Your task to perform on an android device: Open calendar and show me the second week of next month Image 0: 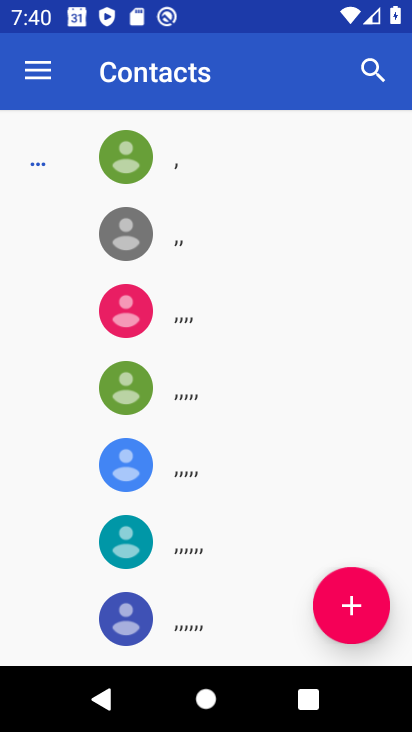
Step 0: press home button
Your task to perform on an android device: Open calendar and show me the second week of next month Image 1: 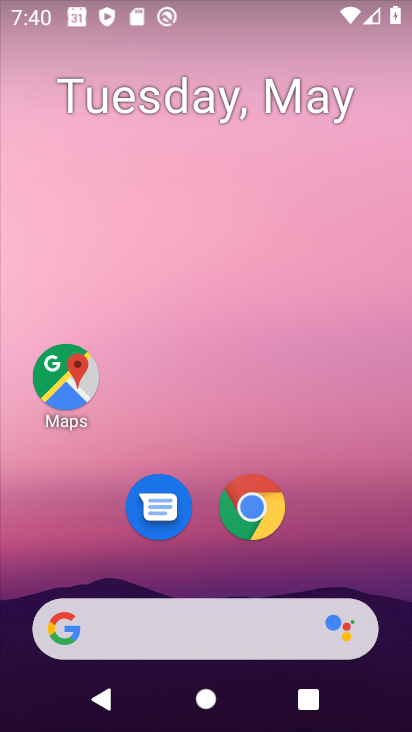
Step 1: drag from (222, 576) to (247, 51)
Your task to perform on an android device: Open calendar and show me the second week of next month Image 2: 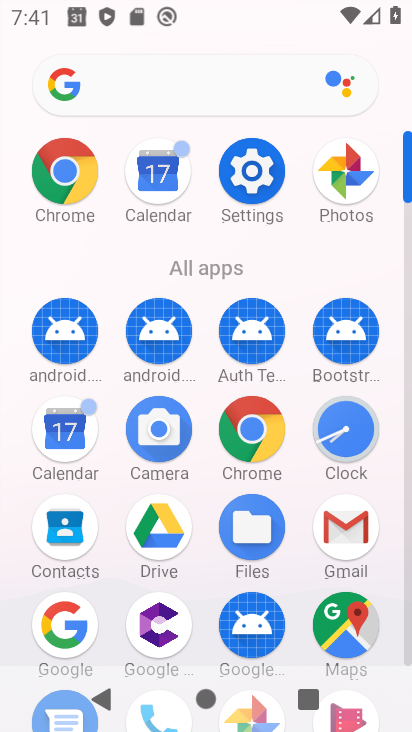
Step 2: click (161, 185)
Your task to perform on an android device: Open calendar and show me the second week of next month Image 3: 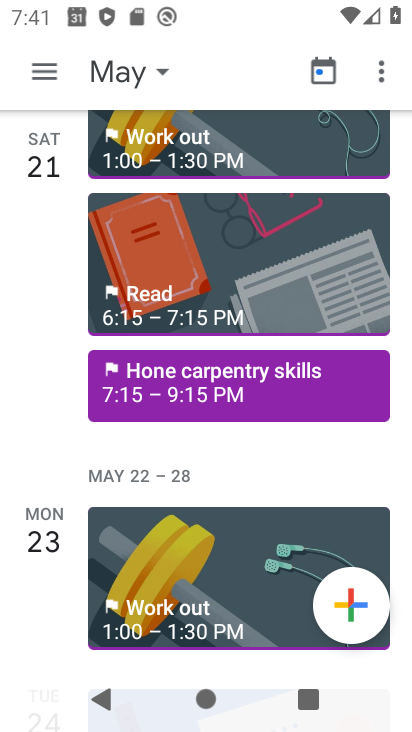
Step 3: click (129, 52)
Your task to perform on an android device: Open calendar and show me the second week of next month Image 4: 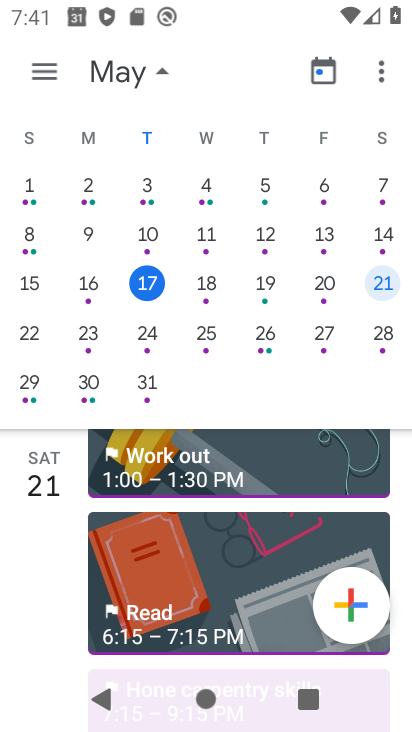
Step 4: drag from (317, 226) to (68, 236)
Your task to perform on an android device: Open calendar and show me the second week of next month Image 5: 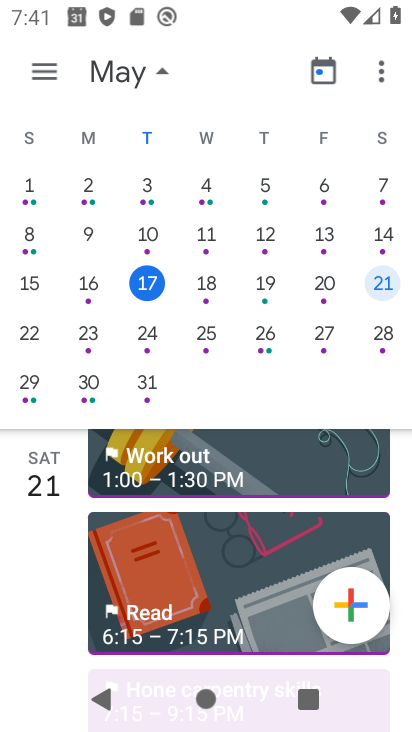
Step 5: drag from (379, 207) to (1, 248)
Your task to perform on an android device: Open calendar and show me the second week of next month Image 6: 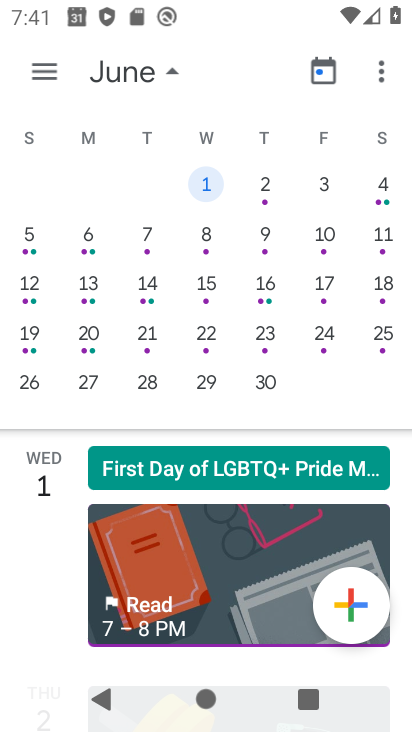
Step 6: click (26, 243)
Your task to perform on an android device: Open calendar and show me the second week of next month Image 7: 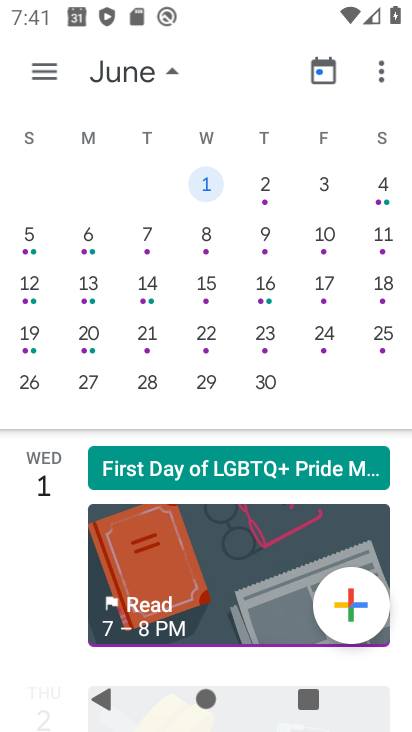
Step 7: click (38, 239)
Your task to perform on an android device: Open calendar and show me the second week of next month Image 8: 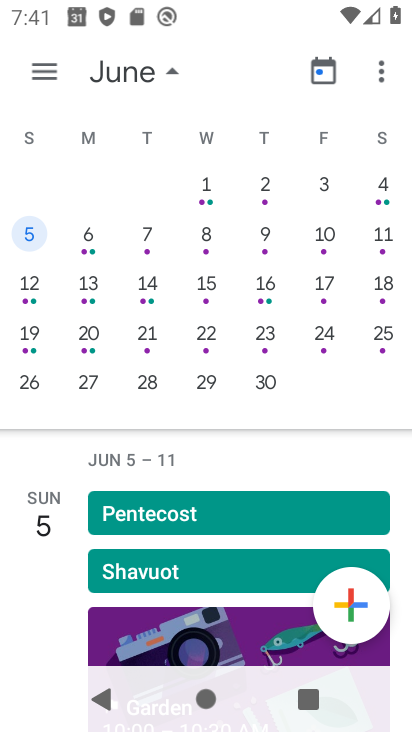
Step 8: task complete